Your task to perform on an android device: Set the phone to "Do not disturb". Image 0: 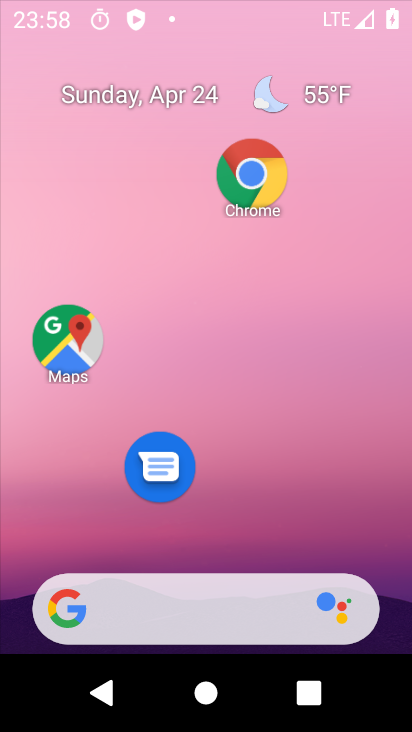
Step 0: click (289, 38)
Your task to perform on an android device: Set the phone to "Do not disturb". Image 1: 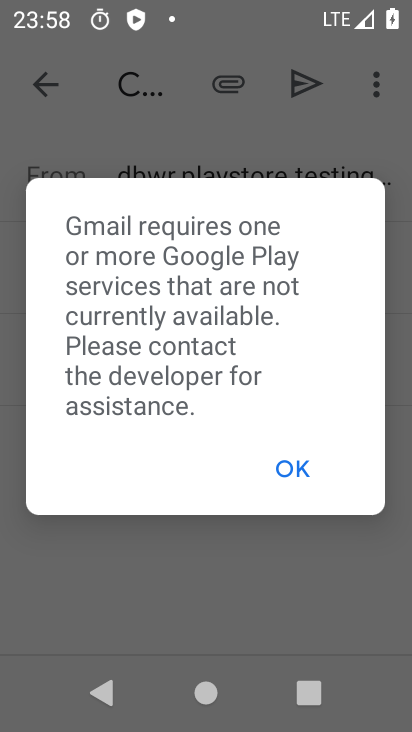
Step 1: press home button
Your task to perform on an android device: Set the phone to "Do not disturb". Image 2: 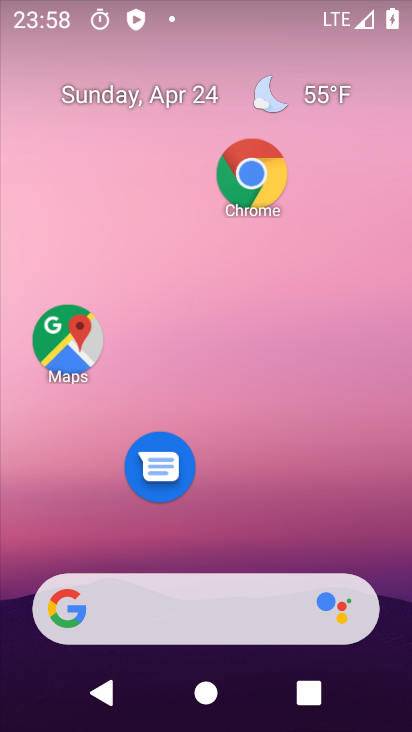
Step 2: drag from (261, 518) to (254, 39)
Your task to perform on an android device: Set the phone to "Do not disturb". Image 3: 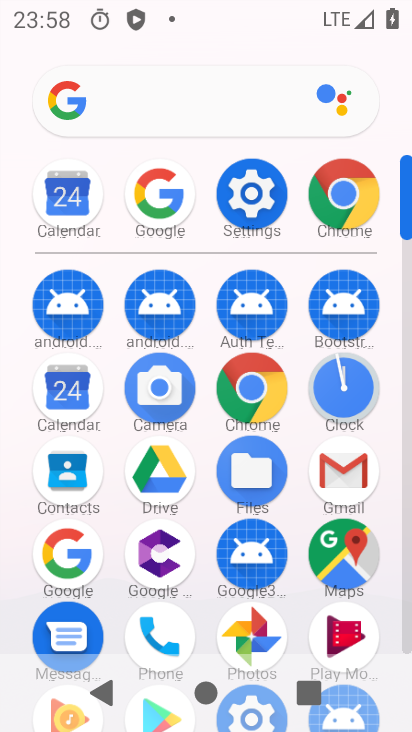
Step 3: click (251, 195)
Your task to perform on an android device: Set the phone to "Do not disturb". Image 4: 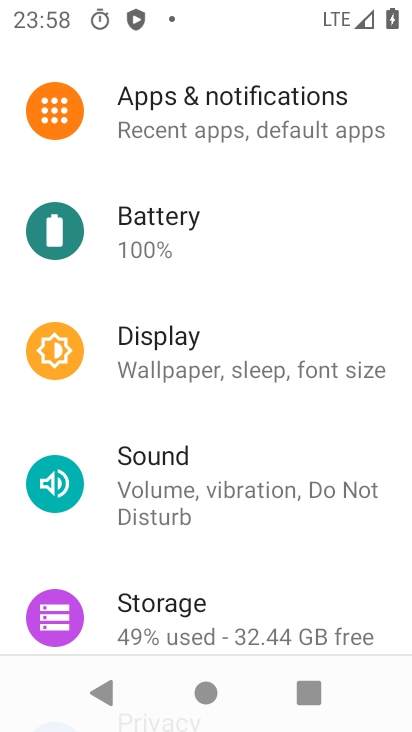
Step 4: click (248, 485)
Your task to perform on an android device: Set the phone to "Do not disturb". Image 5: 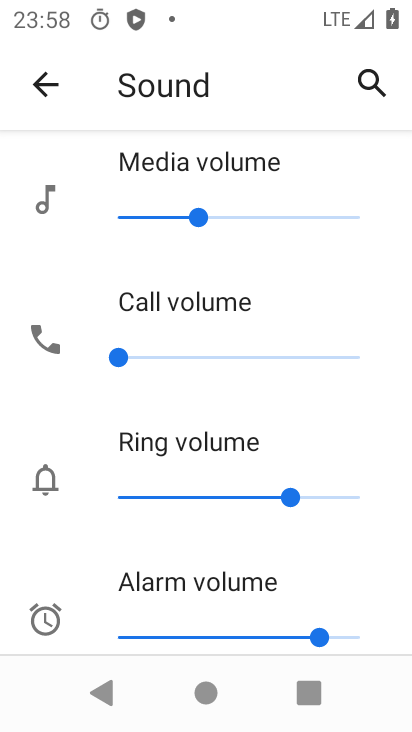
Step 5: drag from (230, 490) to (234, 22)
Your task to perform on an android device: Set the phone to "Do not disturb". Image 6: 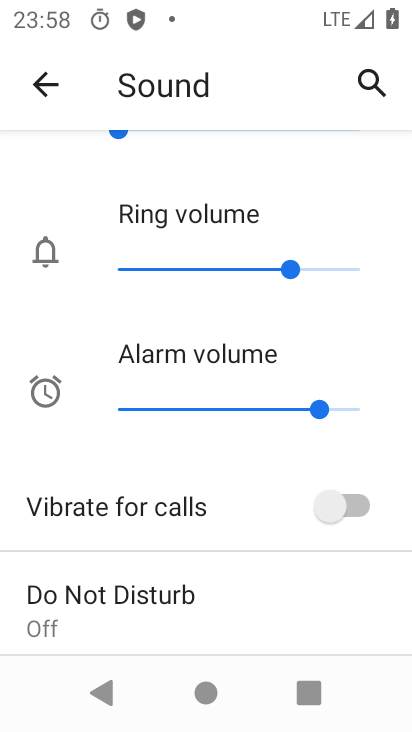
Step 6: click (95, 604)
Your task to perform on an android device: Set the phone to "Do not disturb". Image 7: 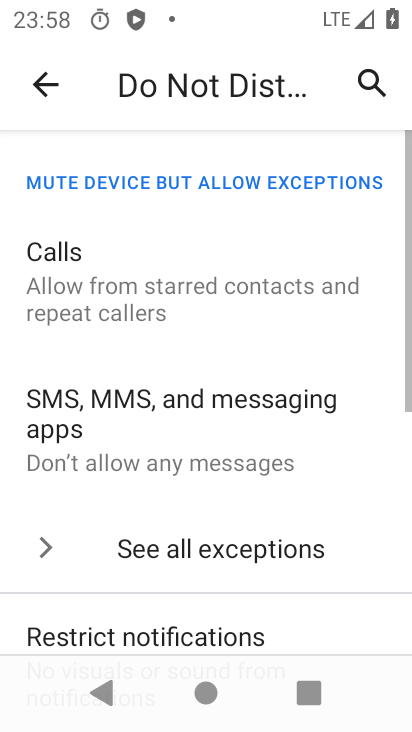
Step 7: drag from (187, 440) to (214, 44)
Your task to perform on an android device: Set the phone to "Do not disturb". Image 8: 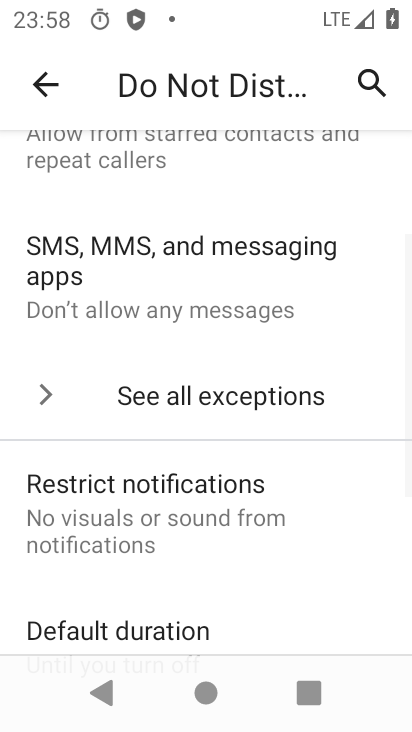
Step 8: drag from (211, 557) to (245, 116)
Your task to perform on an android device: Set the phone to "Do not disturb". Image 9: 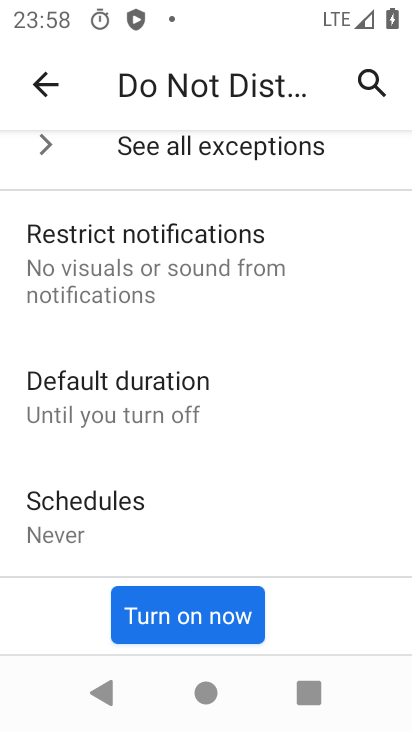
Step 9: click (178, 620)
Your task to perform on an android device: Set the phone to "Do not disturb". Image 10: 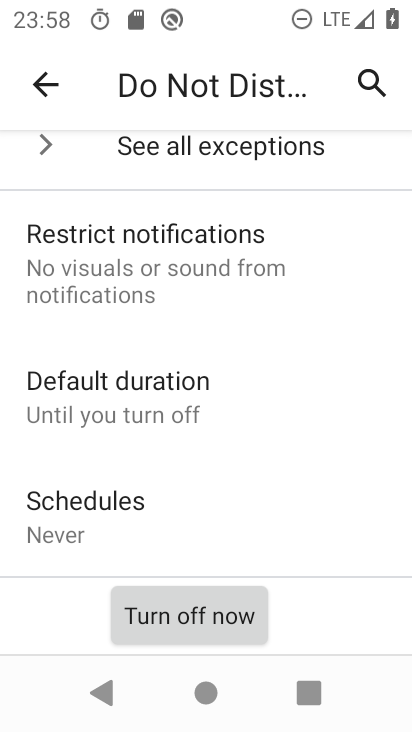
Step 10: task complete